Your task to perform on an android device: Search for pizza restaurants on Maps Image 0: 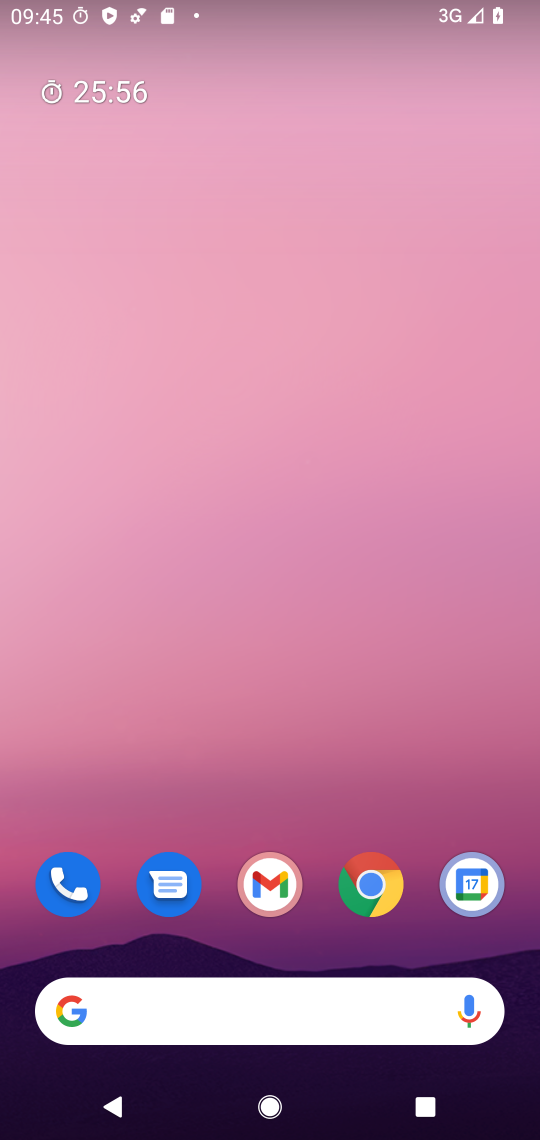
Step 0: drag from (266, 784) to (212, 105)
Your task to perform on an android device: Search for pizza restaurants on Maps Image 1: 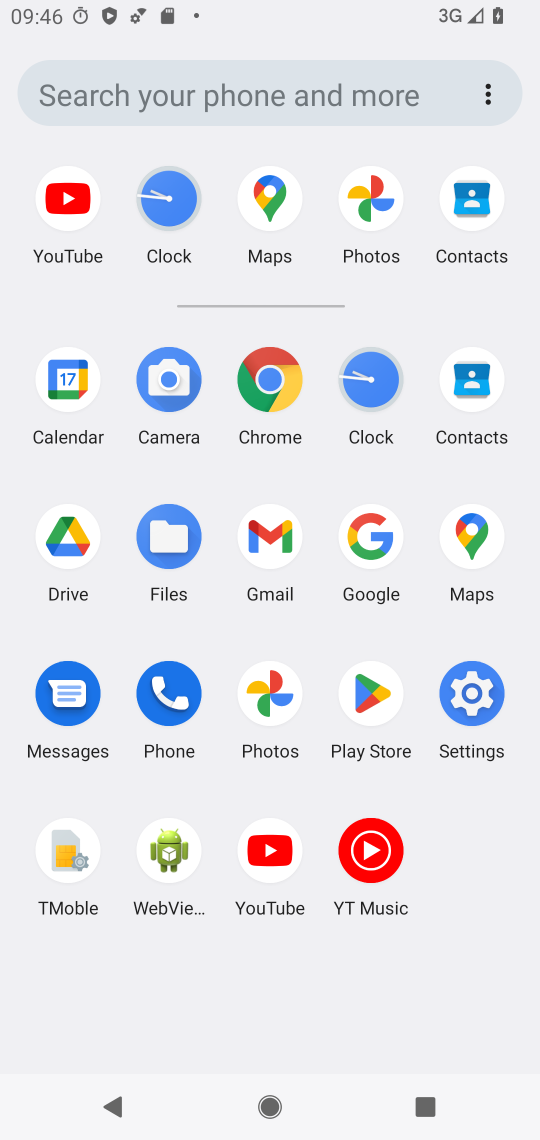
Step 1: click (254, 216)
Your task to perform on an android device: Search for pizza restaurants on Maps Image 2: 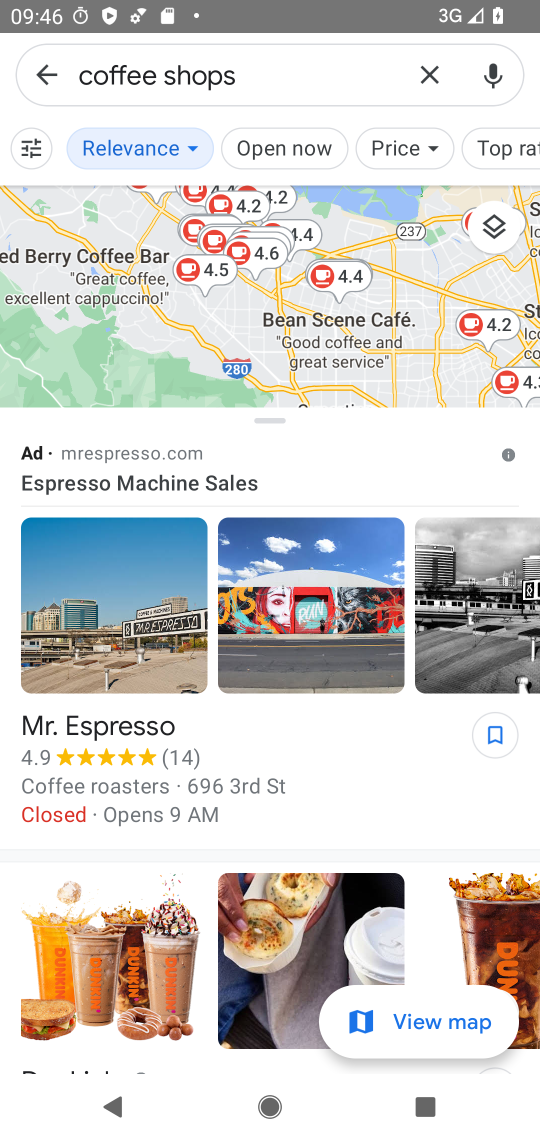
Step 2: click (421, 78)
Your task to perform on an android device: Search for pizza restaurants on Maps Image 3: 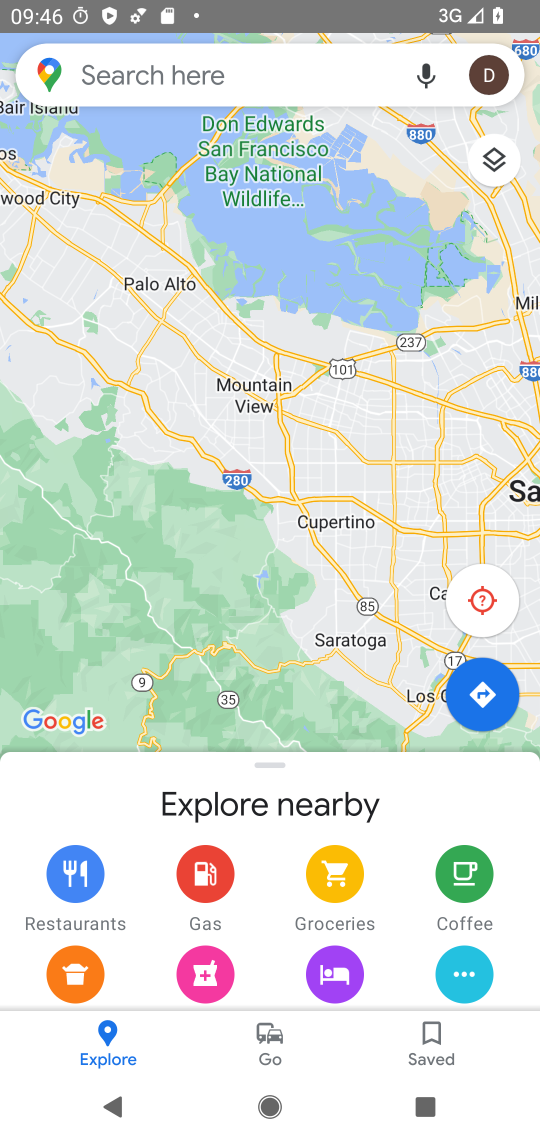
Step 3: click (247, 80)
Your task to perform on an android device: Search for pizza restaurants on Maps Image 4: 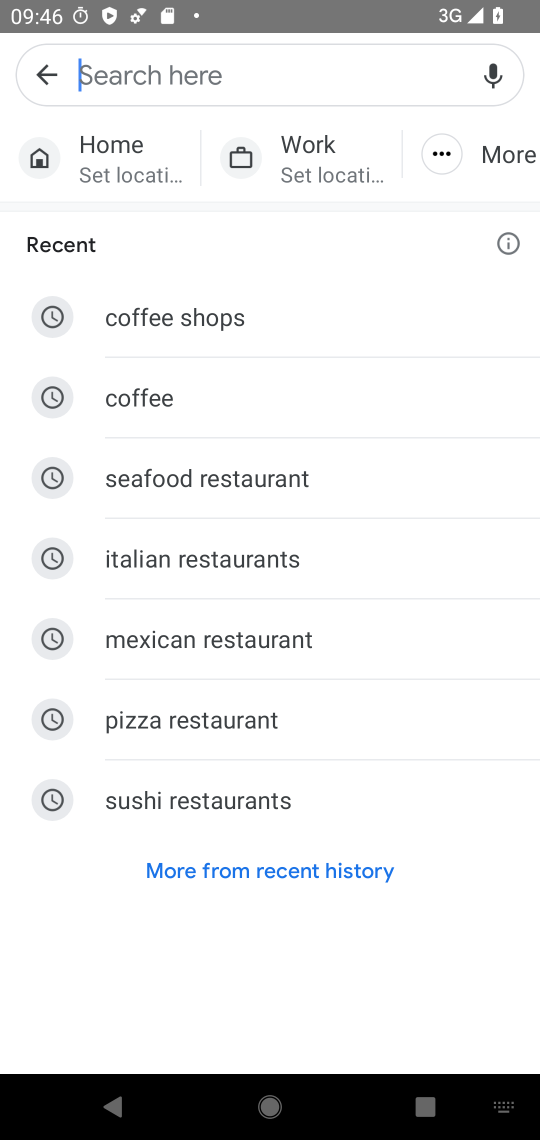
Step 4: type "pizza restaurants"
Your task to perform on an android device: Search for pizza restaurants on Maps Image 5: 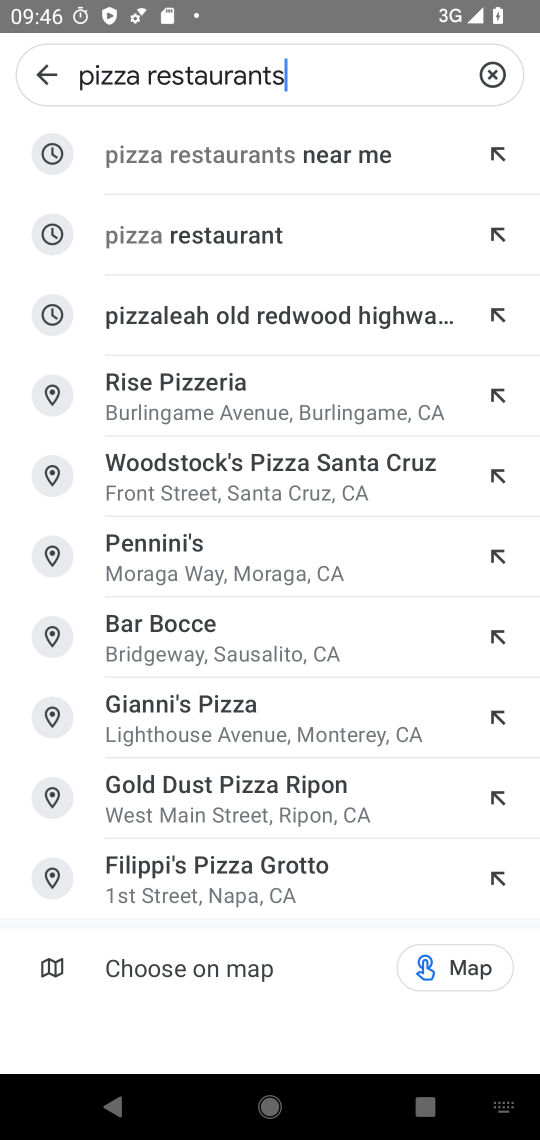
Step 5: click (278, 233)
Your task to perform on an android device: Search for pizza restaurants on Maps Image 6: 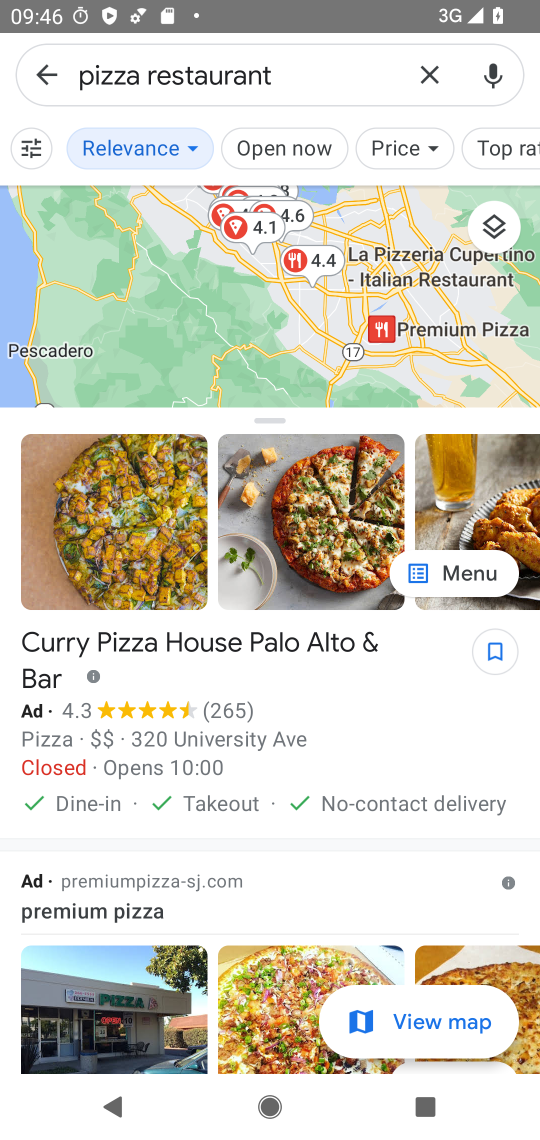
Step 6: task complete